Your task to perform on an android device: check the backup settings in the google photos Image 0: 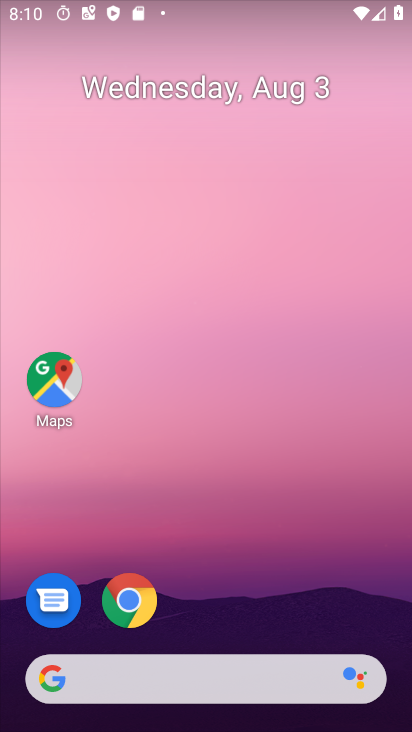
Step 0: drag from (214, 627) to (221, 65)
Your task to perform on an android device: check the backup settings in the google photos Image 1: 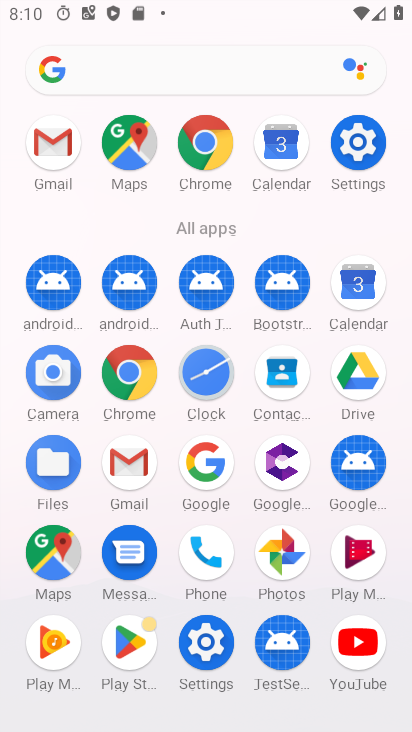
Step 1: click (286, 567)
Your task to perform on an android device: check the backup settings in the google photos Image 2: 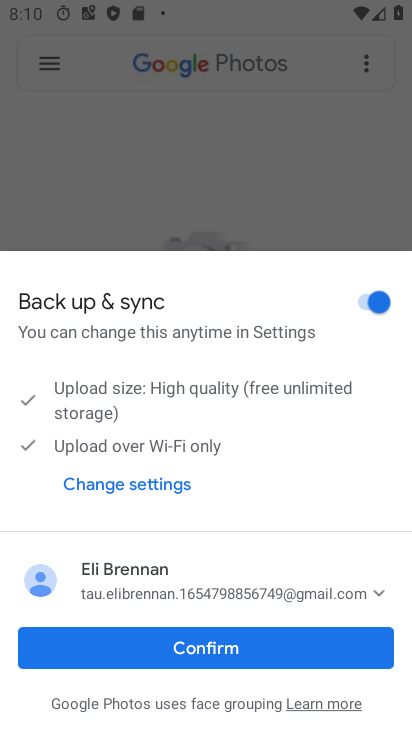
Step 2: click (223, 653)
Your task to perform on an android device: check the backup settings in the google photos Image 3: 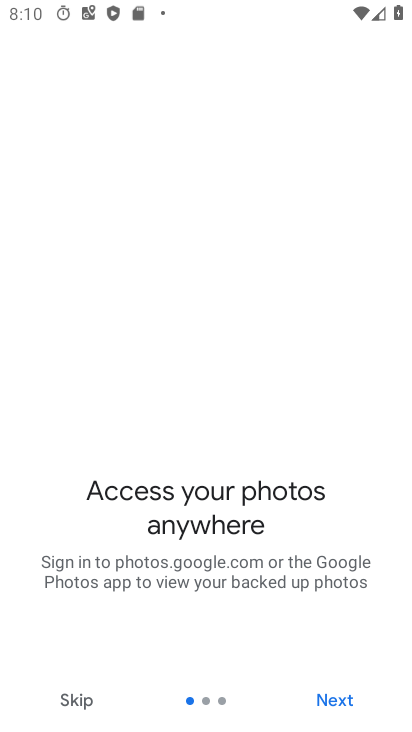
Step 3: click (80, 700)
Your task to perform on an android device: check the backup settings in the google photos Image 4: 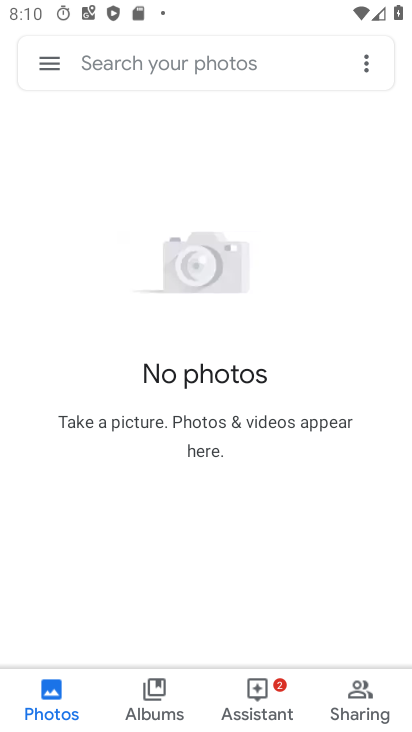
Step 4: click (40, 53)
Your task to perform on an android device: check the backup settings in the google photos Image 5: 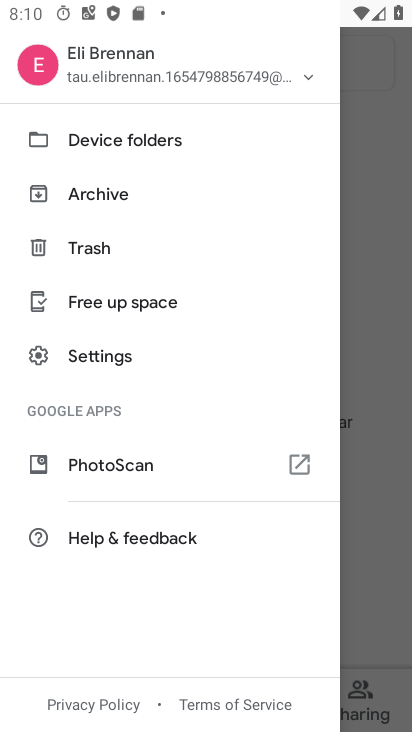
Step 5: click (80, 360)
Your task to perform on an android device: check the backup settings in the google photos Image 6: 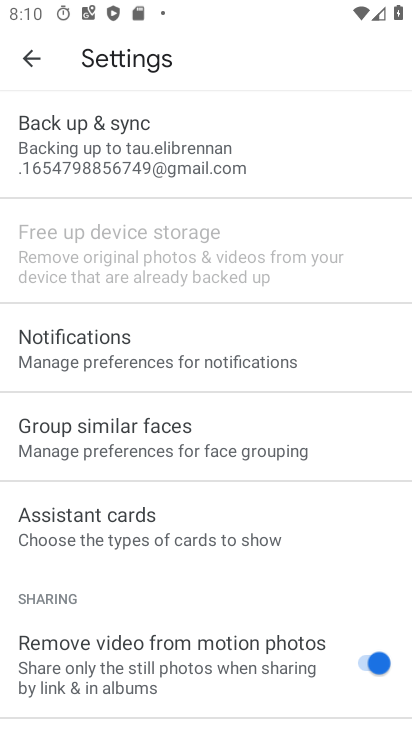
Step 6: click (131, 143)
Your task to perform on an android device: check the backup settings in the google photos Image 7: 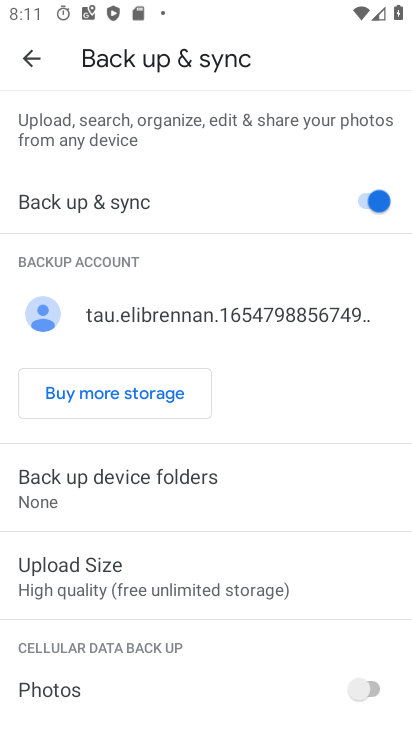
Step 7: task complete